Your task to perform on an android device: see tabs open on other devices in the chrome app Image 0: 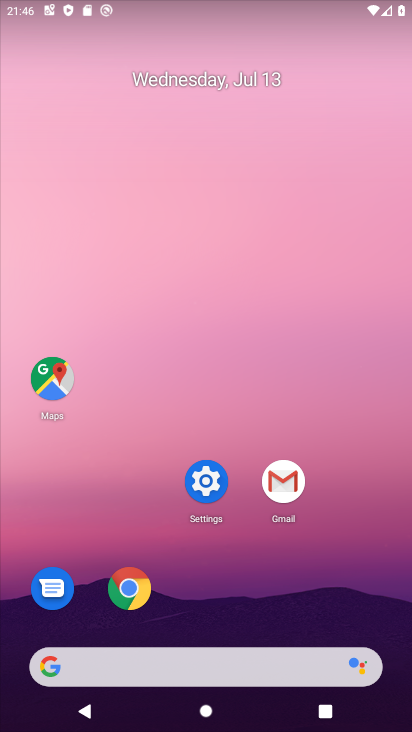
Step 0: click (126, 587)
Your task to perform on an android device: see tabs open on other devices in the chrome app Image 1: 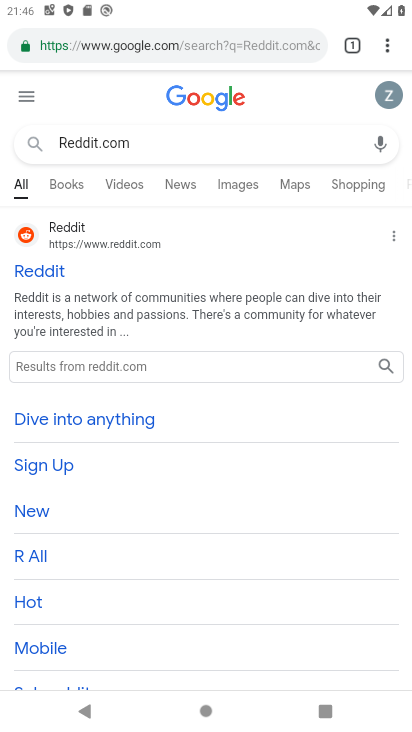
Step 1: click (386, 42)
Your task to perform on an android device: see tabs open on other devices in the chrome app Image 2: 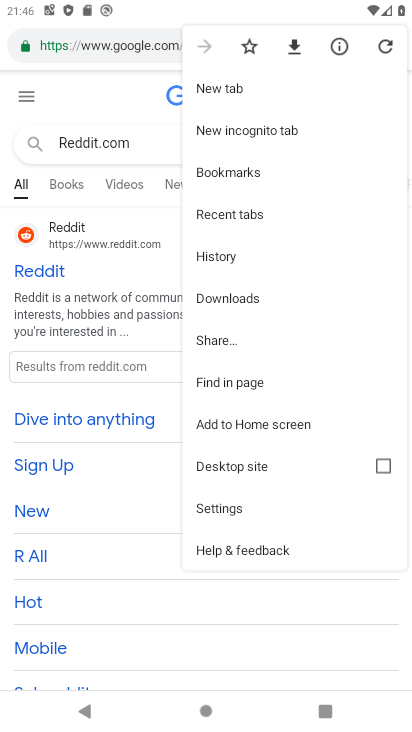
Step 2: click (233, 213)
Your task to perform on an android device: see tabs open on other devices in the chrome app Image 3: 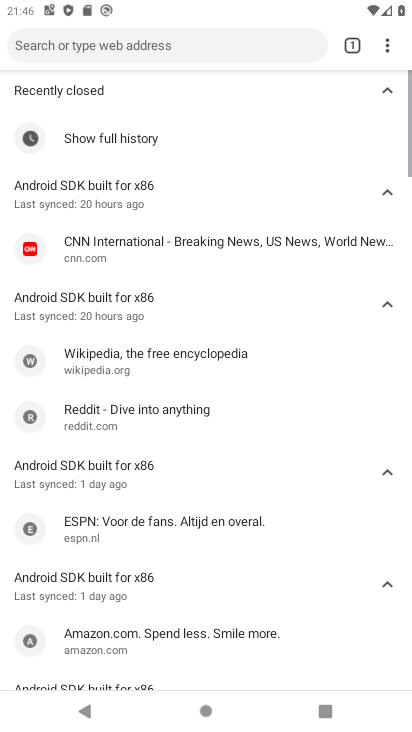
Step 3: task complete